Your task to perform on an android device: open app "Google Play services" Image 0: 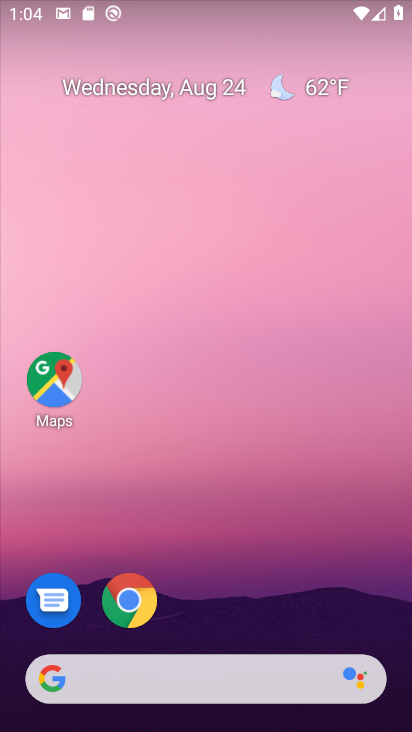
Step 0: drag from (229, 414) to (276, 144)
Your task to perform on an android device: open app "Google Play services" Image 1: 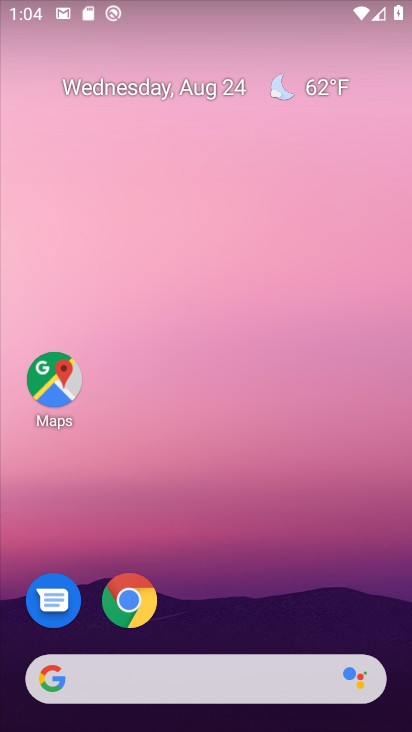
Step 1: drag from (231, 628) to (277, 12)
Your task to perform on an android device: open app "Google Play services" Image 2: 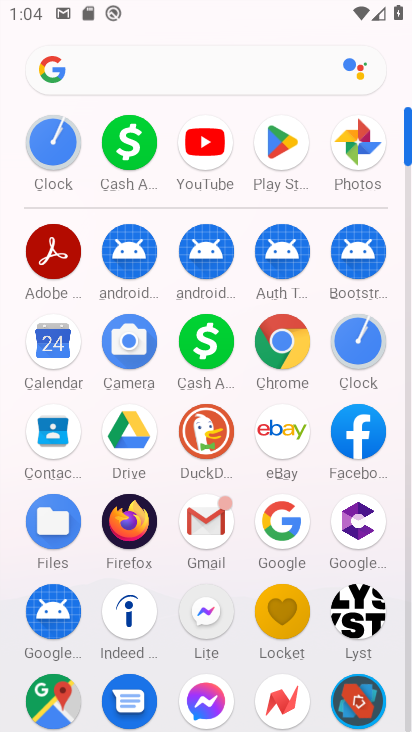
Step 2: click (283, 127)
Your task to perform on an android device: open app "Google Play services" Image 3: 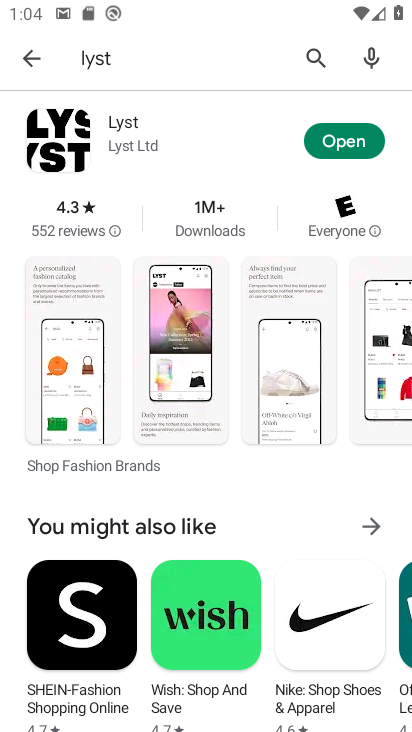
Step 3: click (332, 48)
Your task to perform on an android device: open app "Google Play services" Image 4: 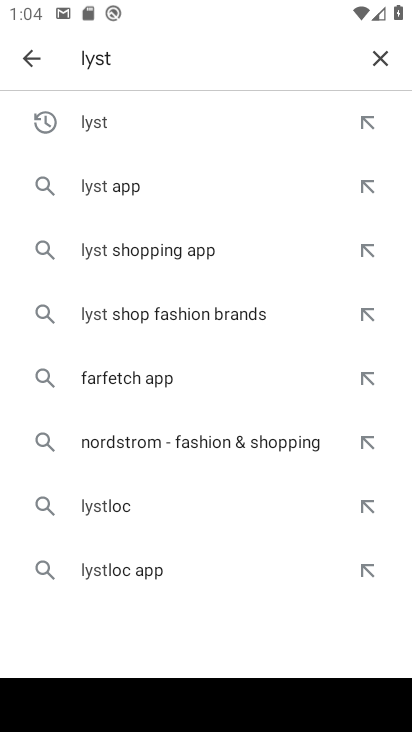
Step 4: click (375, 62)
Your task to perform on an android device: open app "Google Play services" Image 5: 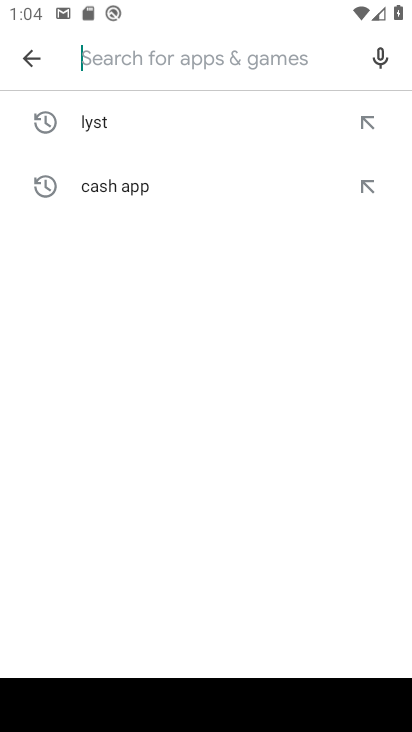
Step 5: type "google play servies"
Your task to perform on an android device: open app "Google Play services" Image 6: 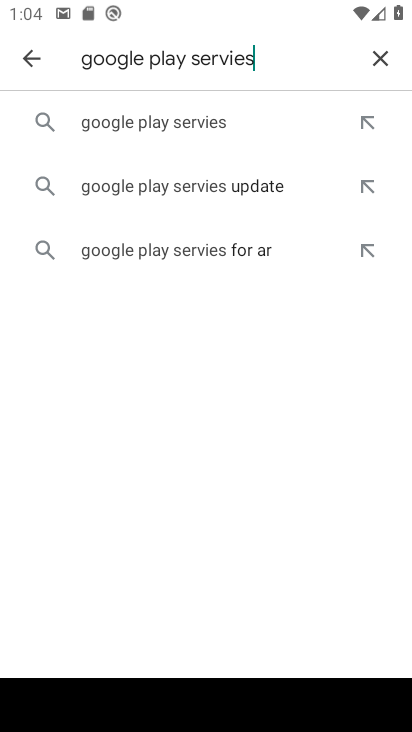
Step 6: click (258, 134)
Your task to perform on an android device: open app "Google Play services" Image 7: 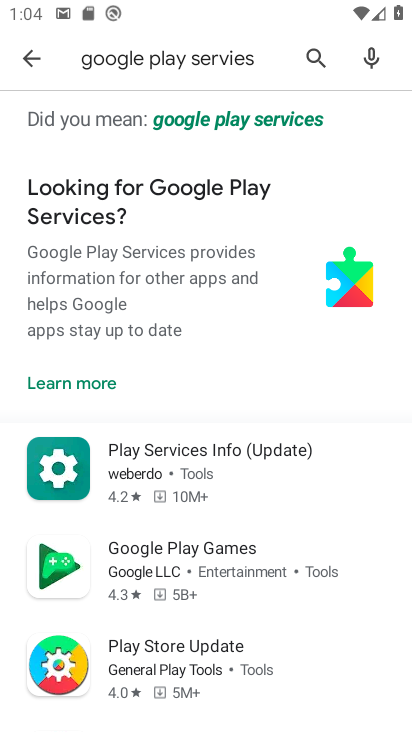
Step 7: click (216, 554)
Your task to perform on an android device: open app "Google Play services" Image 8: 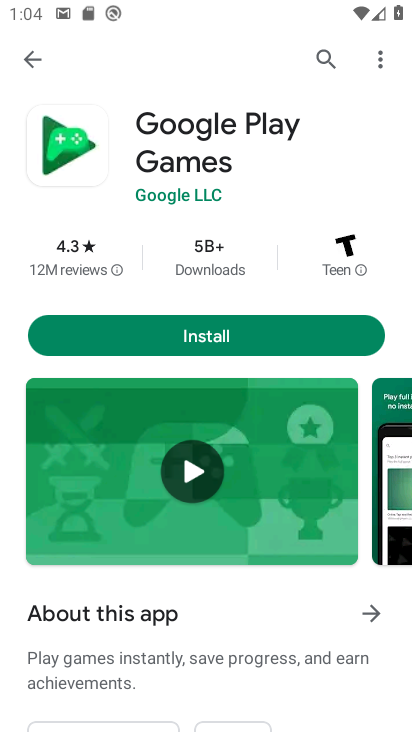
Step 8: click (242, 331)
Your task to perform on an android device: open app "Google Play services" Image 9: 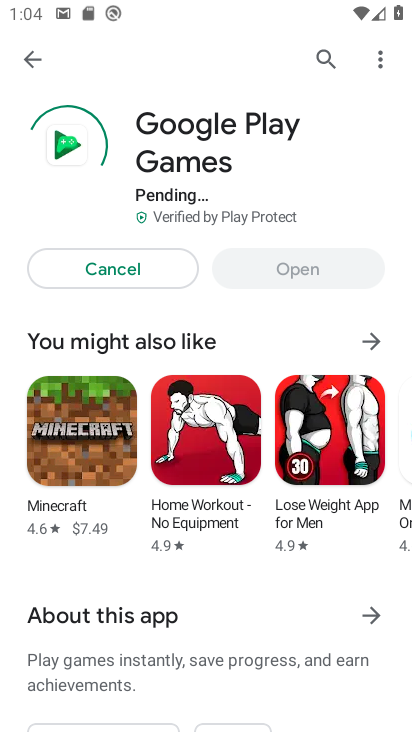
Step 9: task complete